Your task to perform on an android device: turn on notifications settings in the gmail app Image 0: 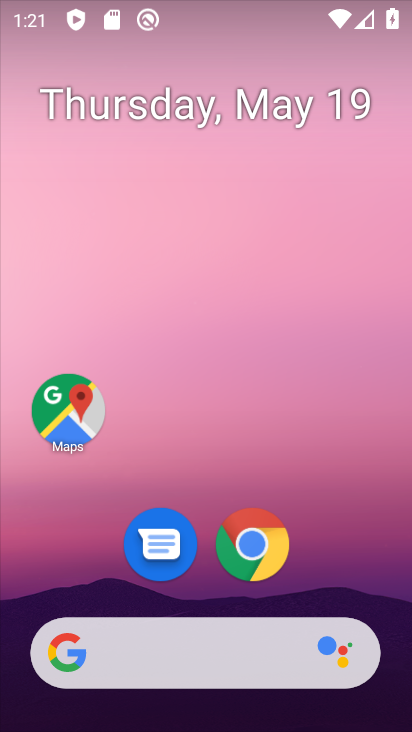
Step 0: press home button
Your task to perform on an android device: turn on notifications settings in the gmail app Image 1: 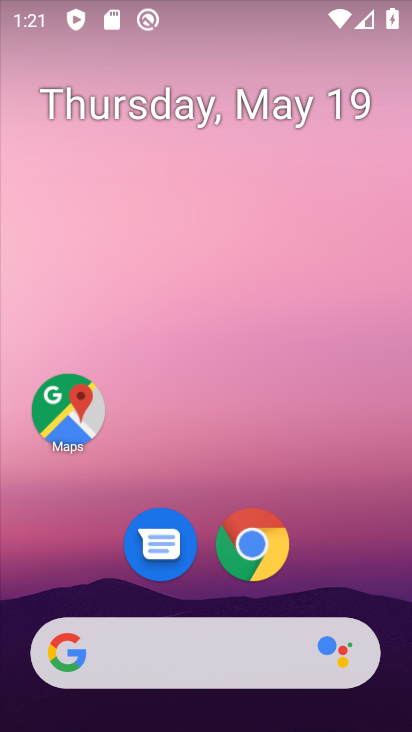
Step 1: drag from (236, 703) to (309, 192)
Your task to perform on an android device: turn on notifications settings in the gmail app Image 2: 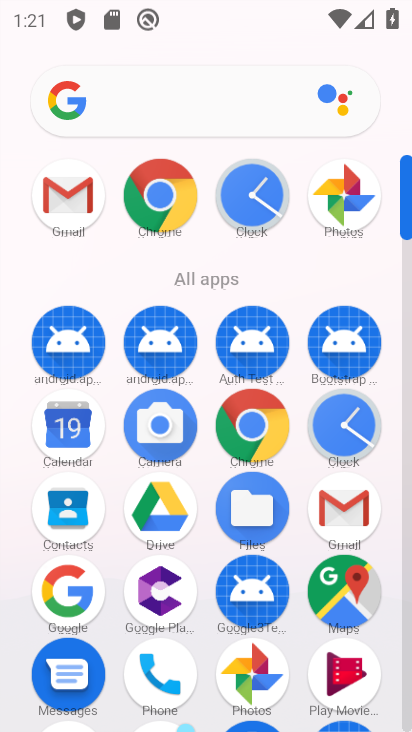
Step 2: click (340, 506)
Your task to perform on an android device: turn on notifications settings in the gmail app Image 3: 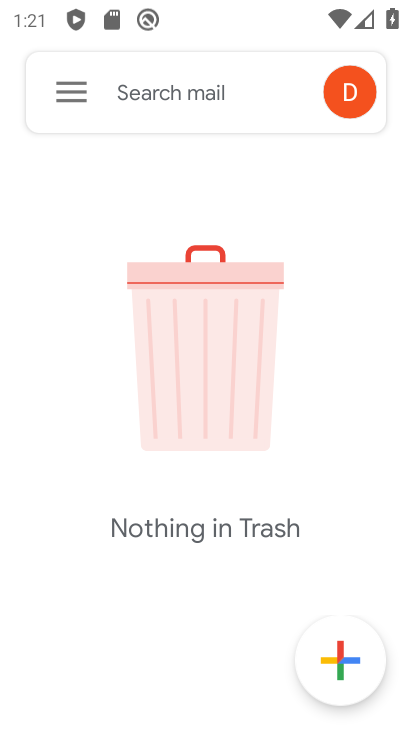
Step 3: click (79, 92)
Your task to perform on an android device: turn on notifications settings in the gmail app Image 4: 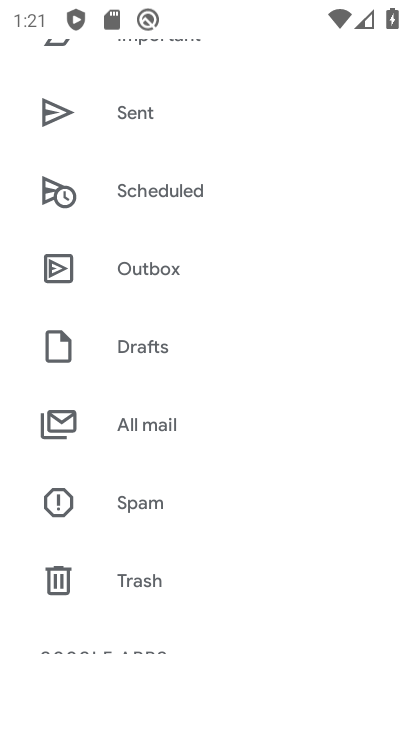
Step 4: drag from (122, 524) to (181, 264)
Your task to perform on an android device: turn on notifications settings in the gmail app Image 5: 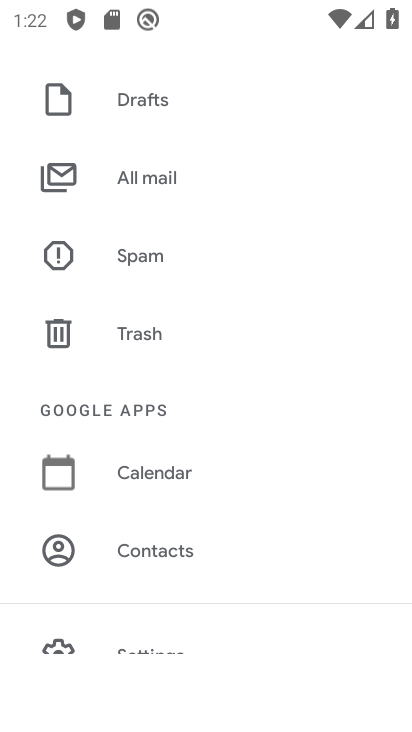
Step 5: click (120, 641)
Your task to perform on an android device: turn on notifications settings in the gmail app Image 6: 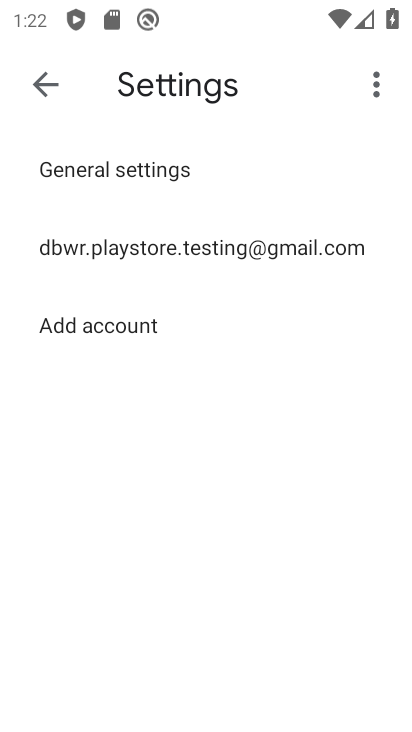
Step 6: click (153, 250)
Your task to perform on an android device: turn on notifications settings in the gmail app Image 7: 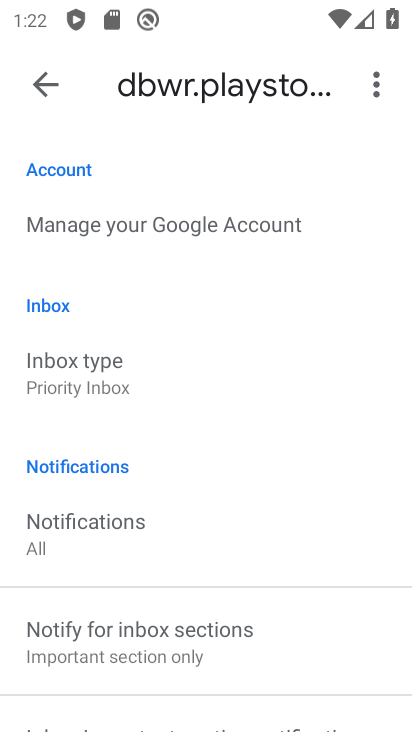
Step 7: click (128, 516)
Your task to perform on an android device: turn on notifications settings in the gmail app Image 8: 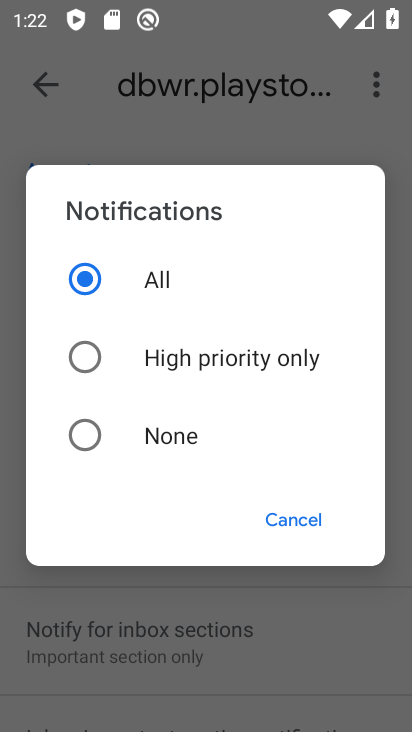
Step 8: task complete